Your task to perform on an android device: Open calendar and show me the second week of next month Image 0: 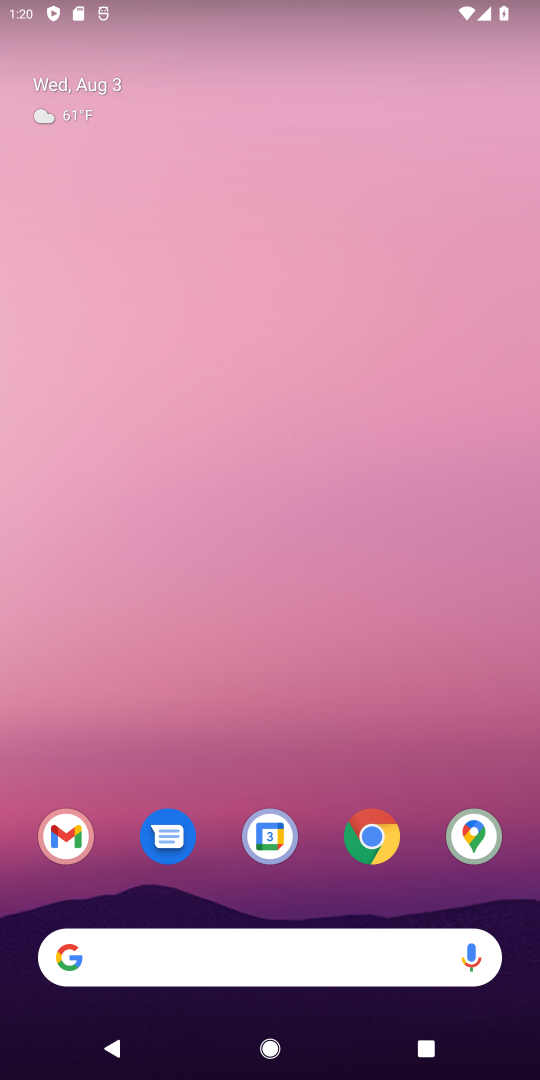
Step 0: drag from (215, 892) to (247, 270)
Your task to perform on an android device: Open calendar and show me the second week of next month Image 1: 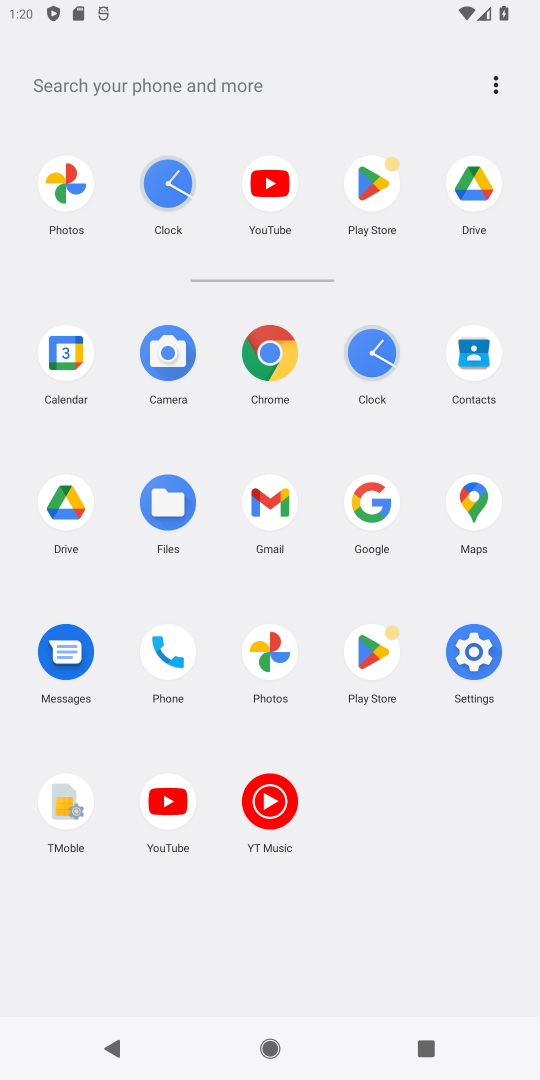
Step 1: click (75, 346)
Your task to perform on an android device: Open calendar and show me the second week of next month Image 2: 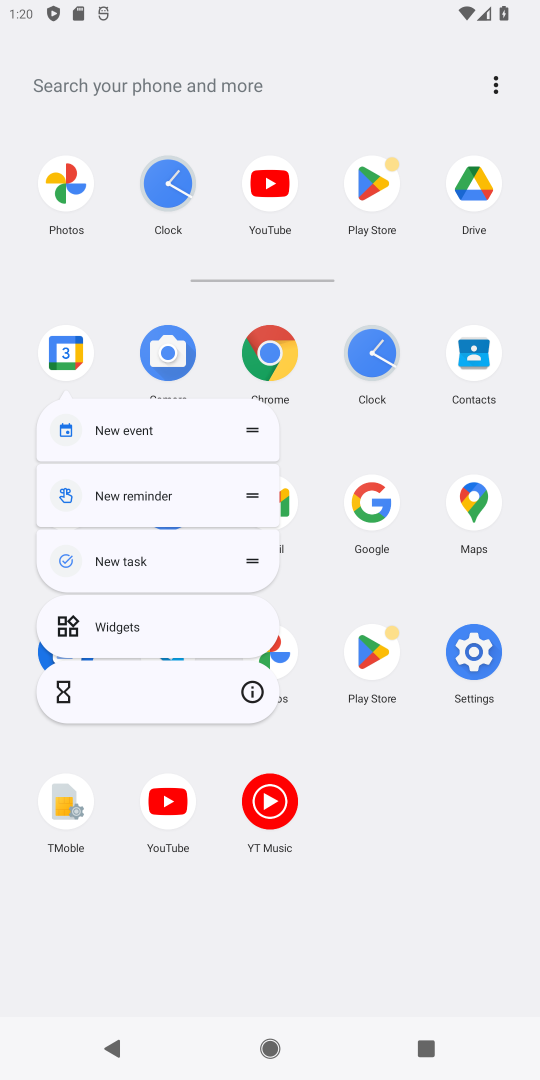
Step 2: click (246, 695)
Your task to perform on an android device: Open calendar and show me the second week of next month Image 3: 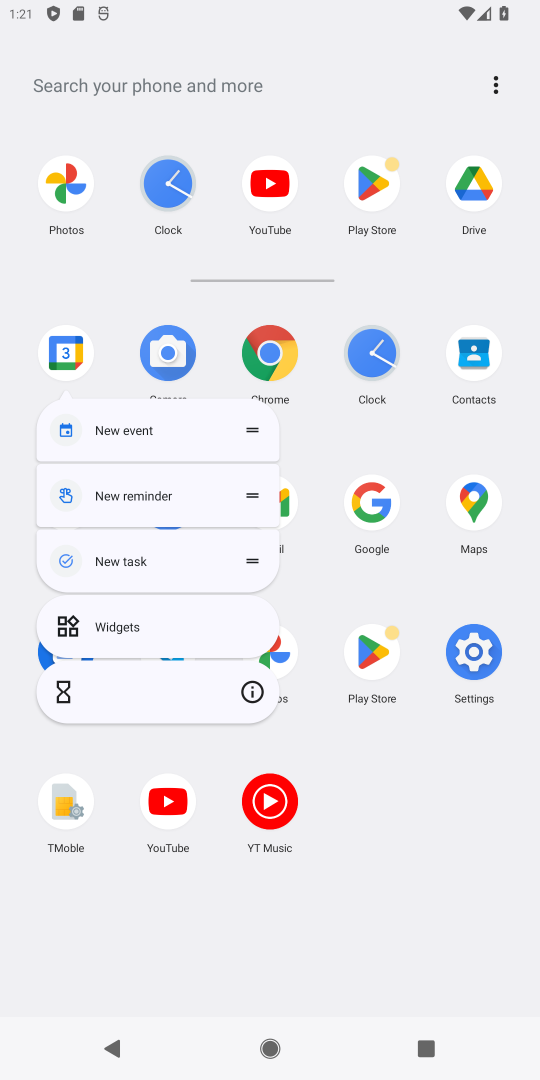
Step 3: click (244, 688)
Your task to perform on an android device: Open calendar and show me the second week of next month Image 4: 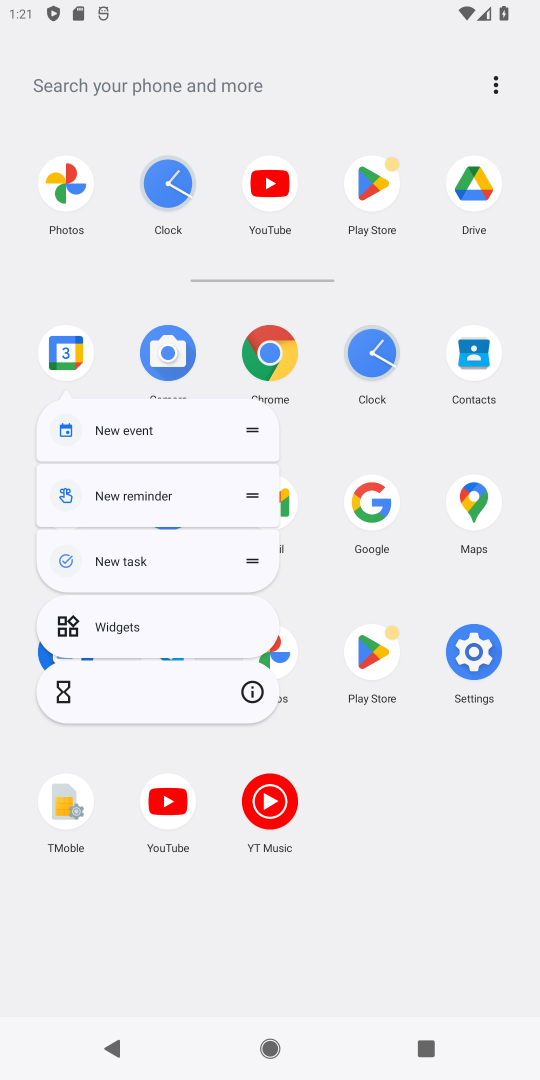
Step 4: click (246, 687)
Your task to perform on an android device: Open calendar and show me the second week of next month Image 5: 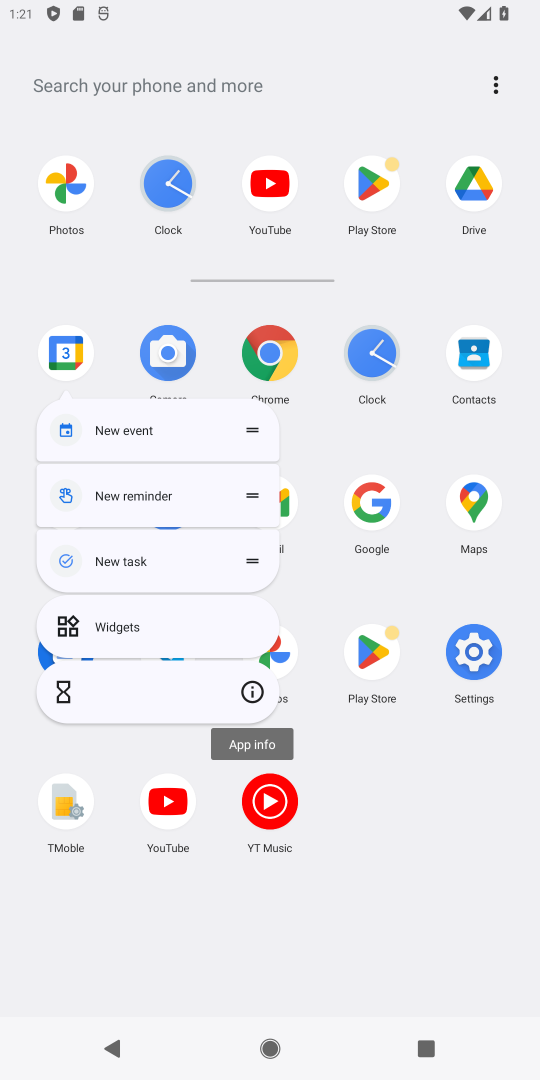
Step 5: click (246, 687)
Your task to perform on an android device: Open calendar and show me the second week of next month Image 6: 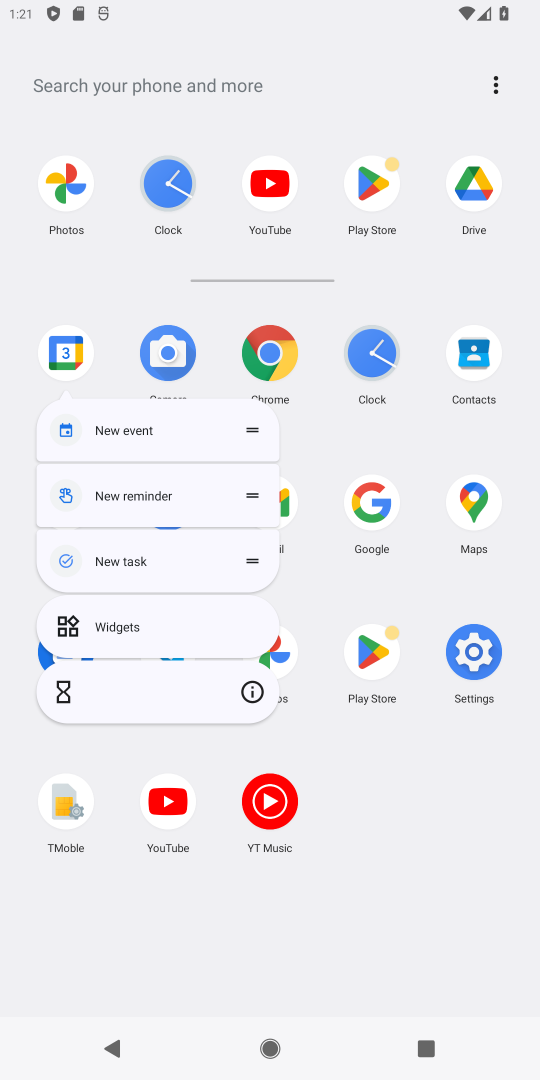
Step 6: click (251, 691)
Your task to perform on an android device: Open calendar and show me the second week of next month Image 7: 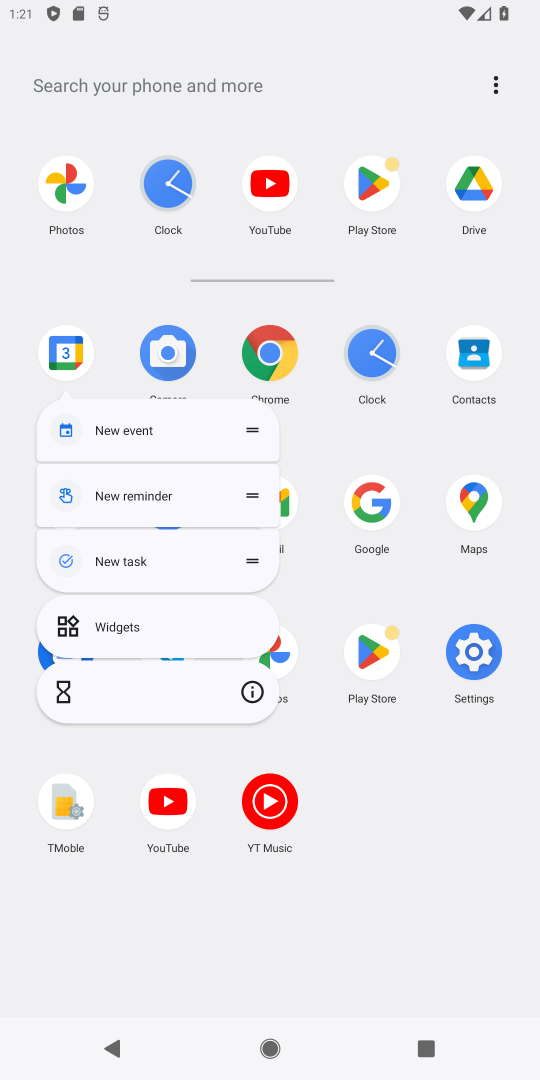
Step 7: click (248, 698)
Your task to perform on an android device: Open calendar and show me the second week of next month Image 8: 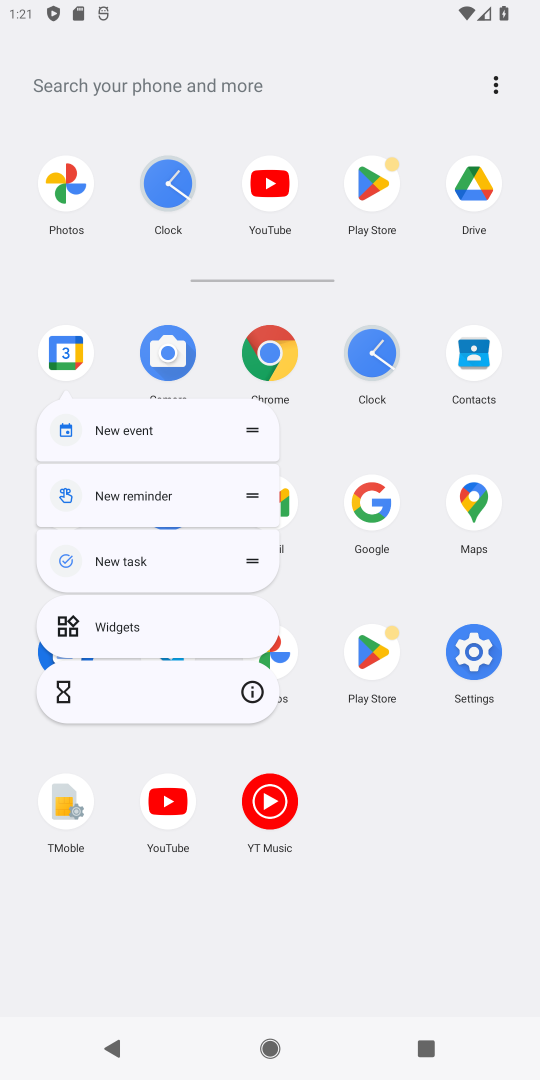
Step 8: click (246, 700)
Your task to perform on an android device: Open calendar and show me the second week of next month Image 9: 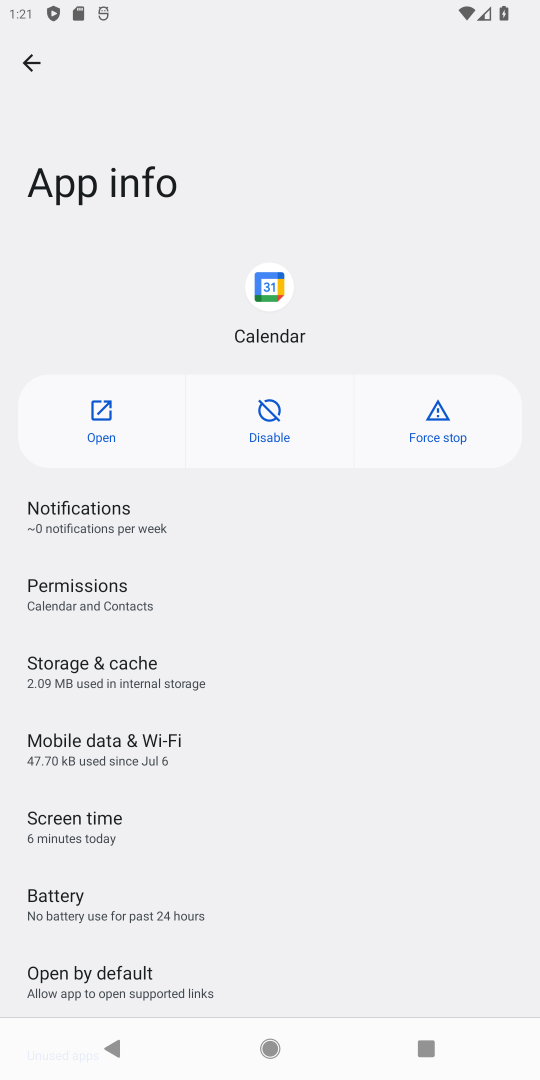
Step 9: click (97, 440)
Your task to perform on an android device: Open calendar and show me the second week of next month Image 10: 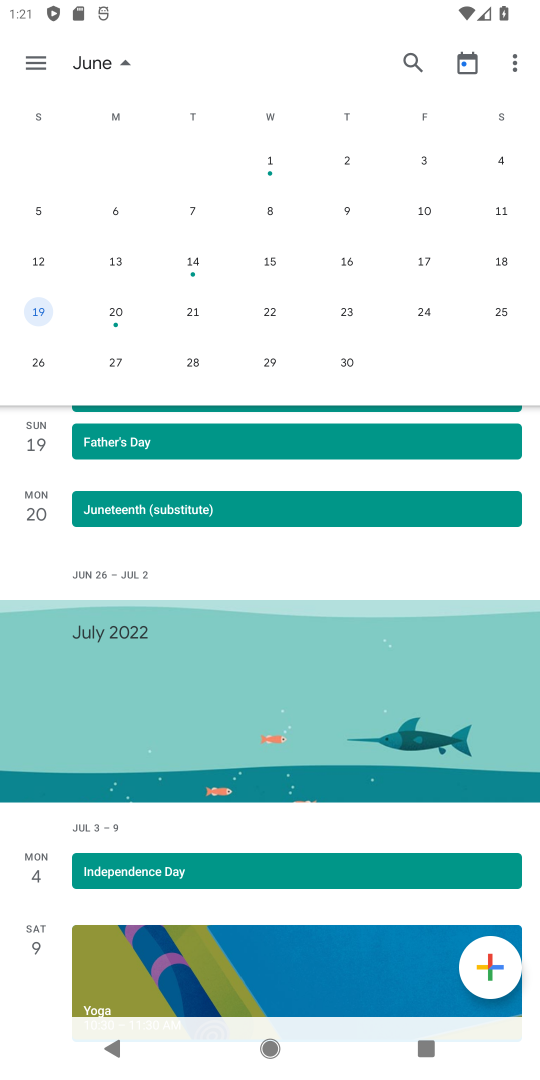
Step 10: drag from (307, 813) to (446, 1079)
Your task to perform on an android device: Open calendar and show me the second week of next month Image 11: 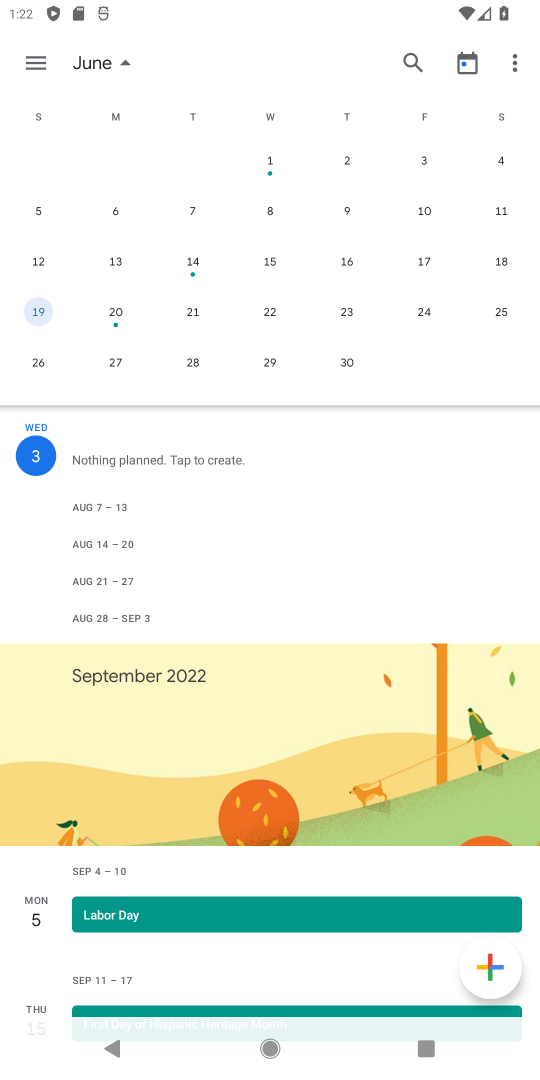
Step 11: click (466, 63)
Your task to perform on an android device: Open calendar and show me the second week of next month Image 12: 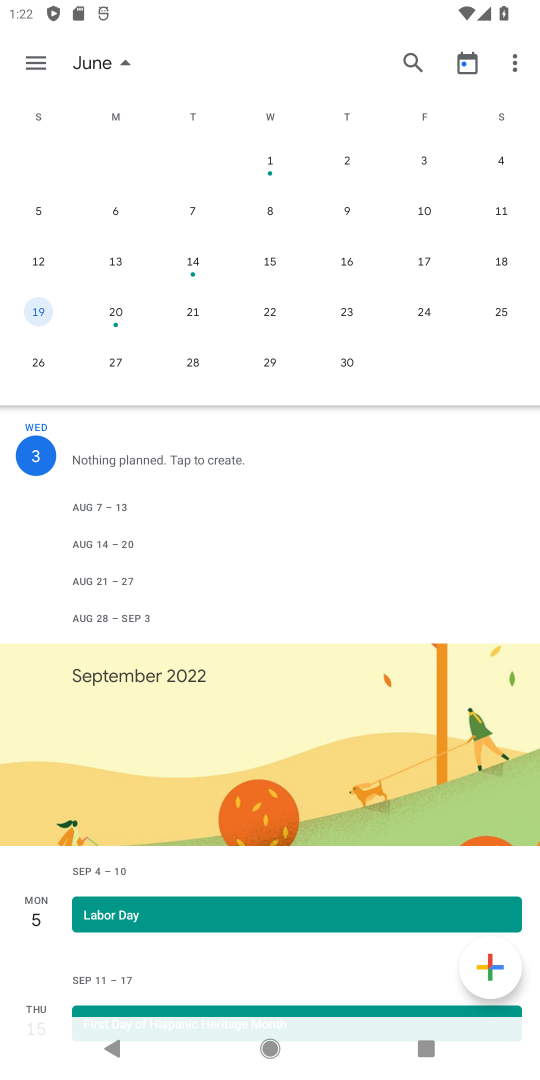
Step 12: drag from (481, 237) to (1, 310)
Your task to perform on an android device: Open calendar and show me the second week of next month Image 13: 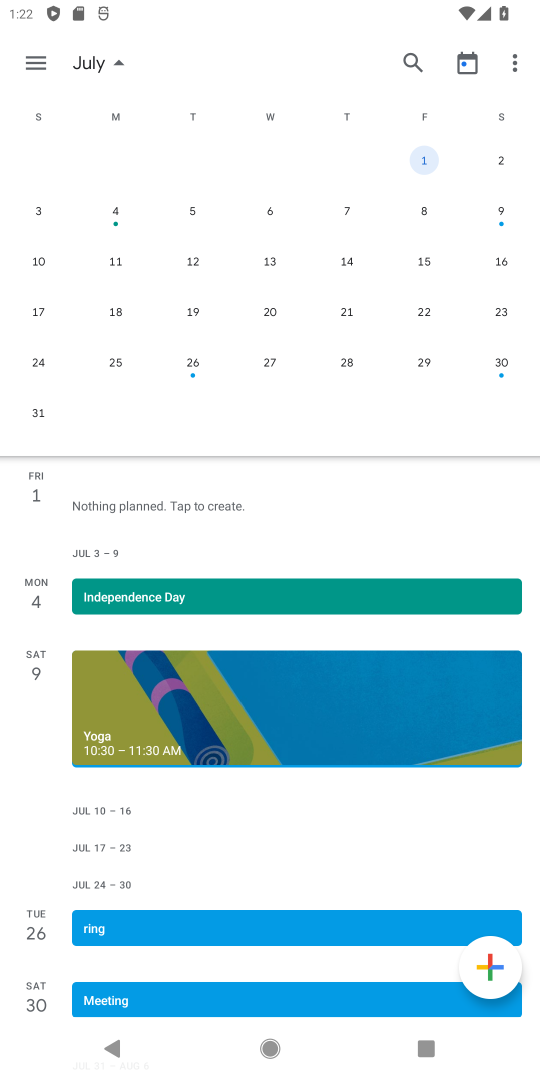
Step 13: click (463, 71)
Your task to perform on an android device: Open calendar and show me the second week of next month Image 14: 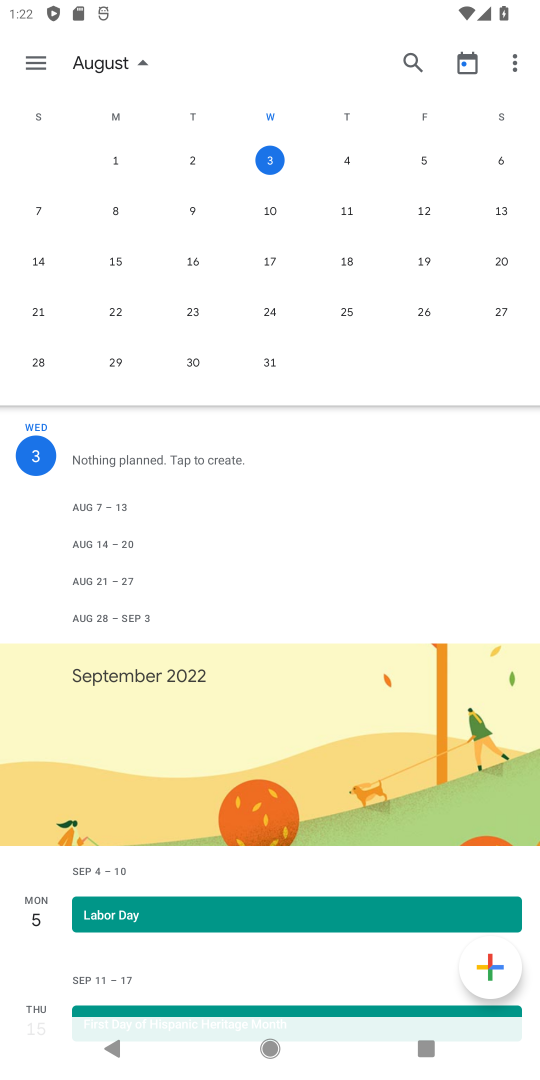
Step 14: click (274, 215)
Your task to perform on an android device: Open calendar and show me the second week of next month Image 15: 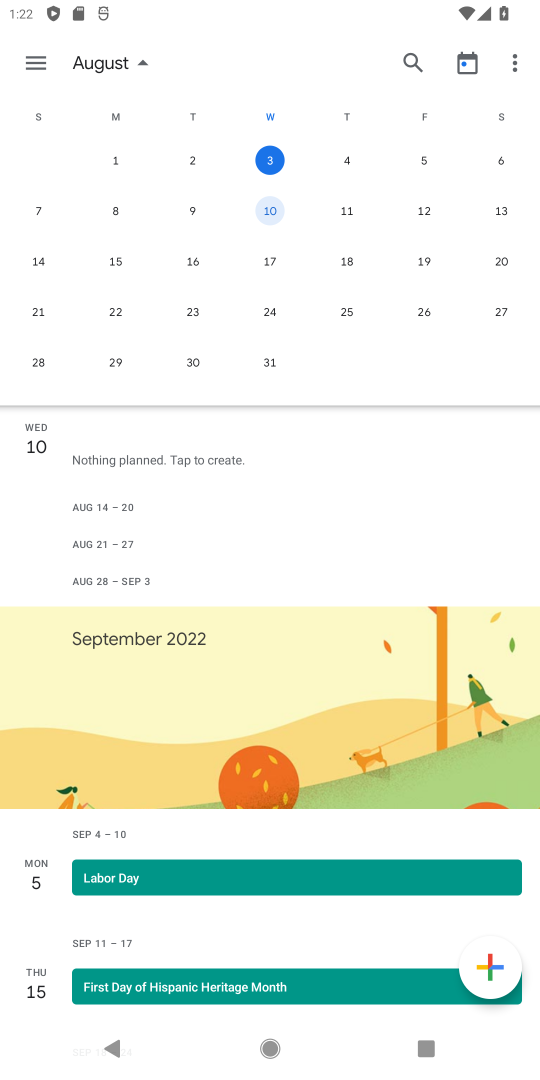
Step 15: task complete